Your task to perform on an android device: add a contact Image 0: 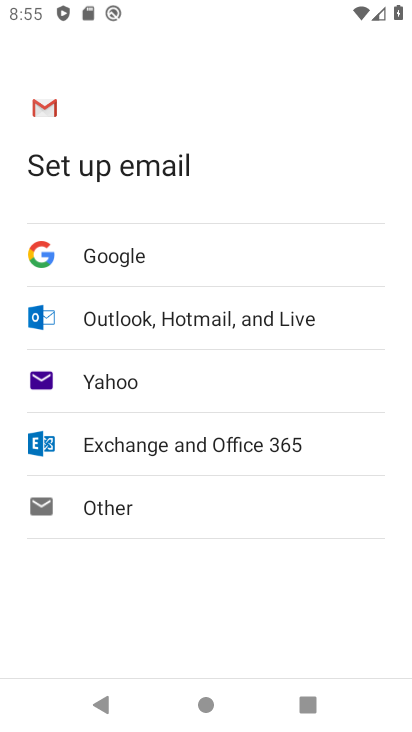
Step 0: press home button
Your task to perform on an android device: add a contact Image 1: 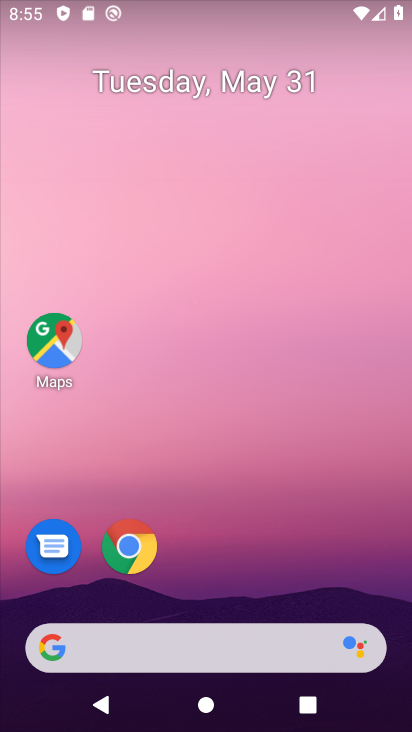
Step 1: drag from (378, 541) to (348, 88)
Your task to perform on an android device: add a contact Image 2: 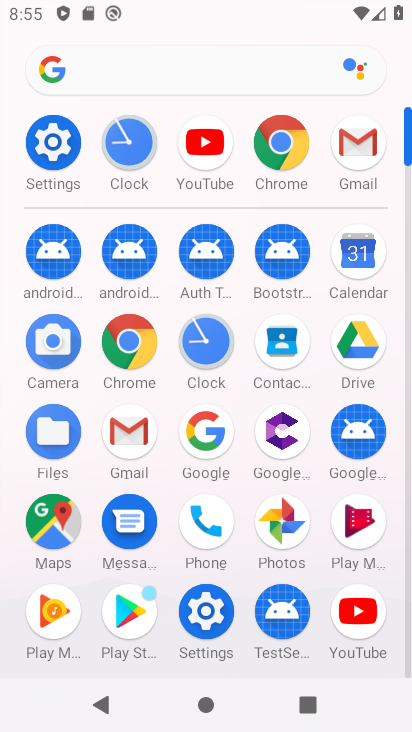
Step 2: click (285, 346)
Your task to perform on an android device: add a contact Image 3: 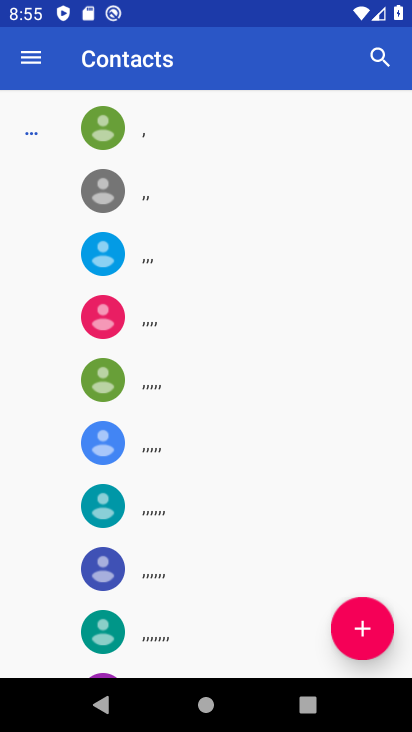
Step 3: click (337, 621)
Your task to perform on an android device: add a contact Image 4: 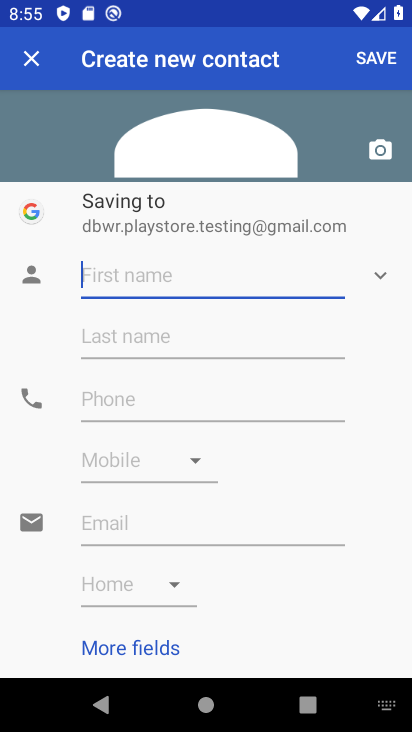
Step 4: type "dggffdh"
Your task to perform on an android device: add a contact Image 5: 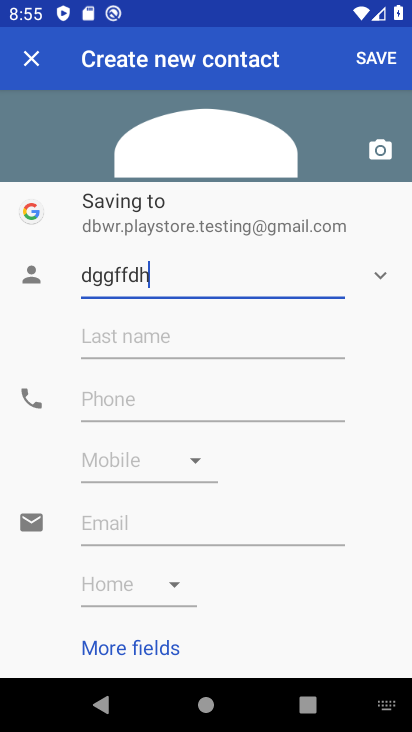
Step 5: click (136, 333)
Your task to perform on an android device: add a contact Image 6: 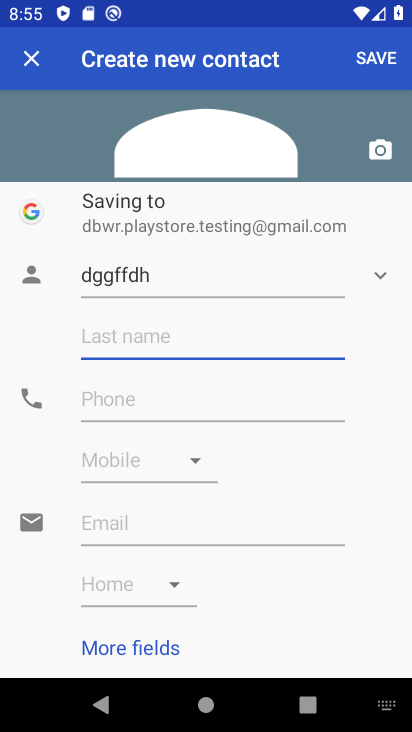
Step 6: type "rfcchtfjfjt"
Your task to perform on an android device: add a contact Image 7: 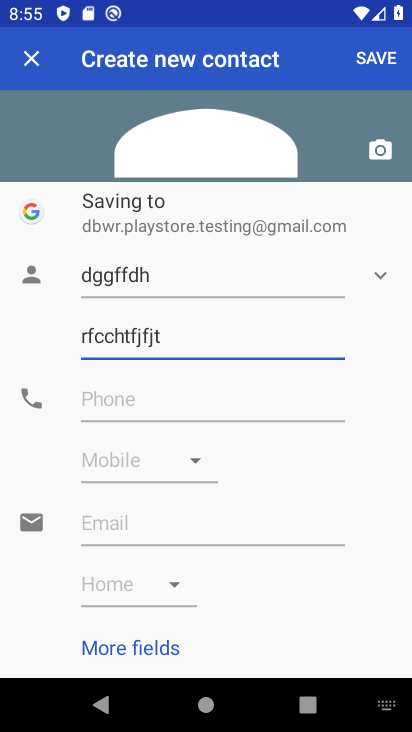
Step 7: click (90, 388)
Your task to perform on an android device: add a contact Image 8: 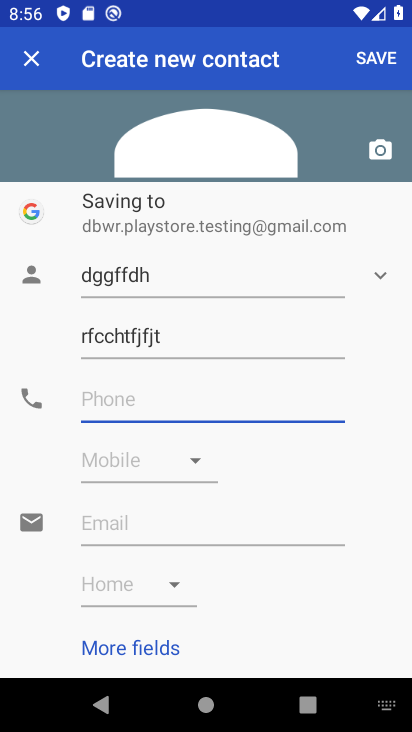
Step 8: type "435674333"
Your task to perform on an android device: add a contact Image 9: 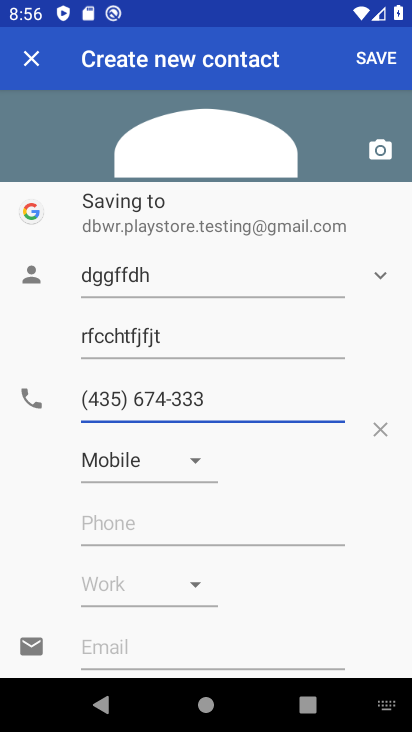
Step 9: click (382, 55)
Your task to perform on an android device: add a contact Image 10: 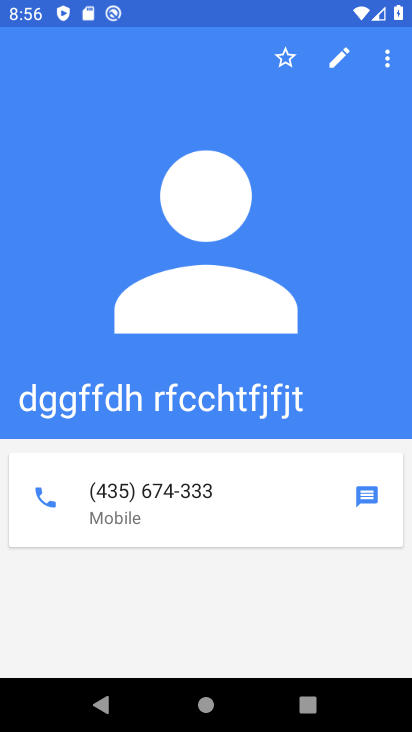
Step 10: task complete